Your task to perform on an android device: Open settings Image 0: 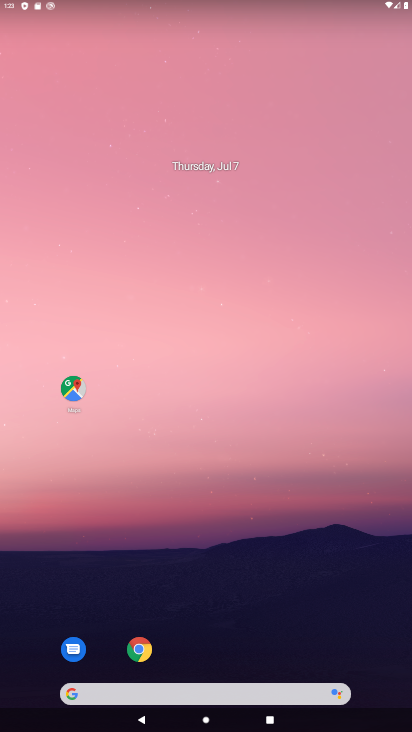
Step 0: drag from (41, 722) to (344, 49)
Your task to perform on an android device: Open settings Image 1: 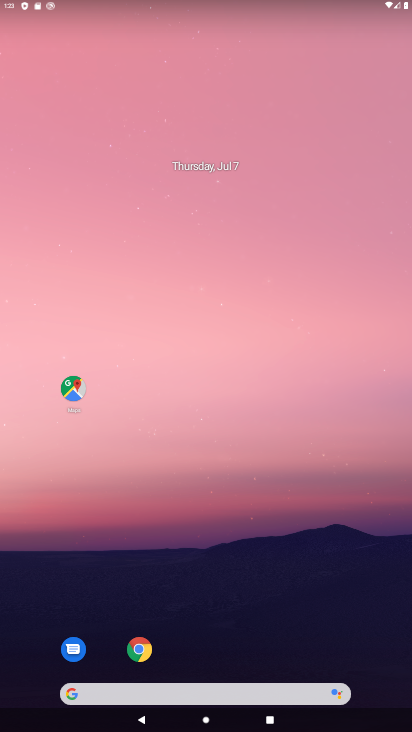
Step 1: drag from (36, 700) to (360, 0)
Your task to perform on an android device: Open settings Image 2: 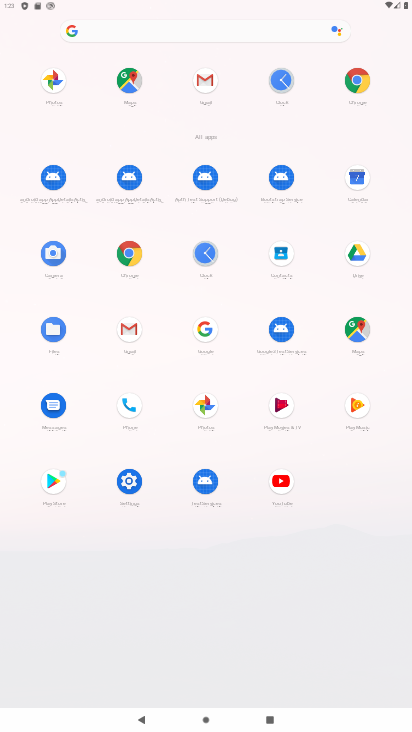
Step 2: click (127, 489)
Your task to perform on an android device: Open settings Image 3: 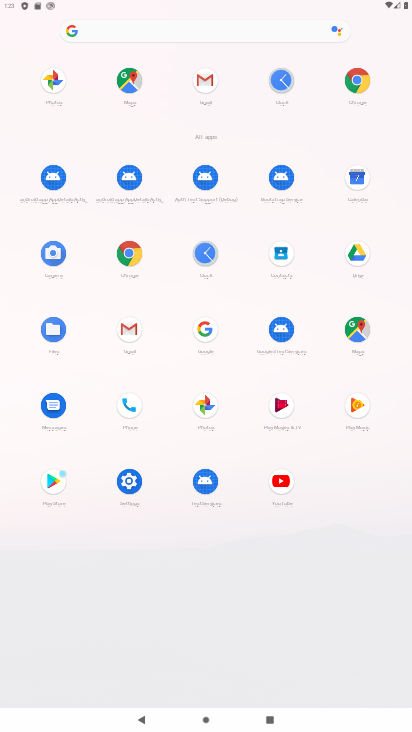
Step 3: click (127, 489)
Your task to perform on an android device: Open settings Image 4: 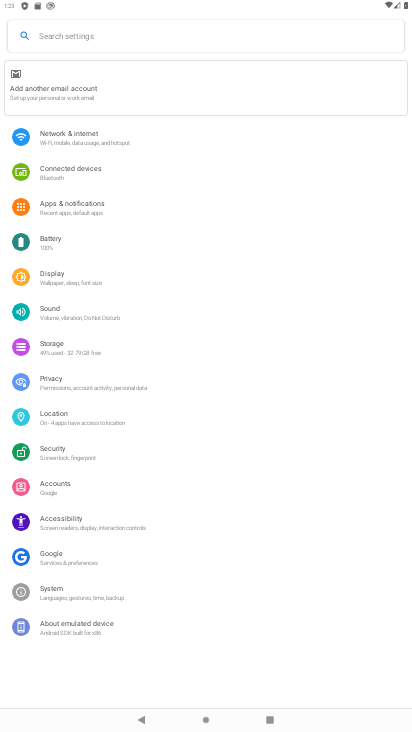
Step 4: task complete